Your task to perform on an android device: Open the Play Movies app and select the watchlist tab. Image 0: 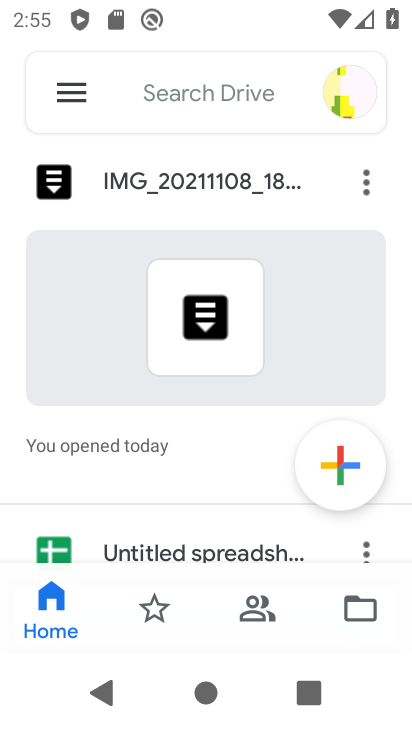
Step 0: press home button
Your task to perform on an android device: Open the Play Movies app and select the watchlist tab. Image 1: 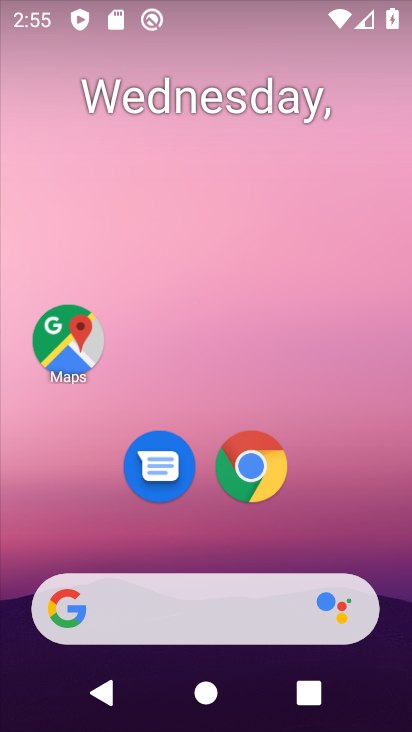
Step 1: drag from (396, 624) to (323, 157)
Your task to perform on an android device: Open the Play Movies app and select the watchlist tab. Image 2: 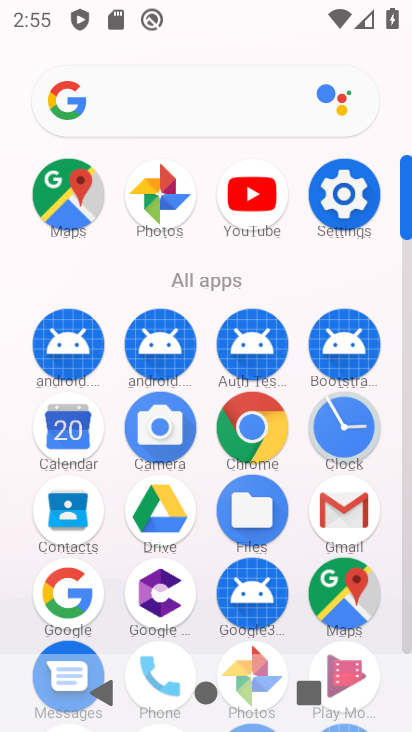
Step 2: click (407, 642)
Your task to perform on an android device: Open the Play Movies app and select the watchlist tab. Image 3: 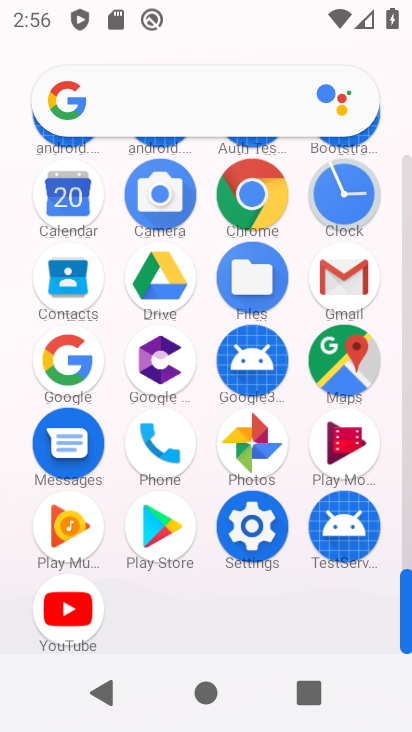
Step 3: click (337, 443)
Your task to perform on an android device: Open the Play Movies app and select the watchlist tab. Image 4: 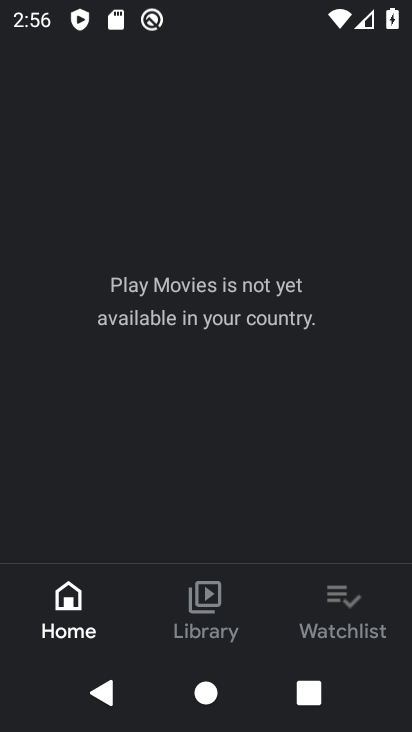
Step 4: click (332, 602)
Your task to perform on an android device: Open the Play Movies app and select the watchlist tab. Image 5: 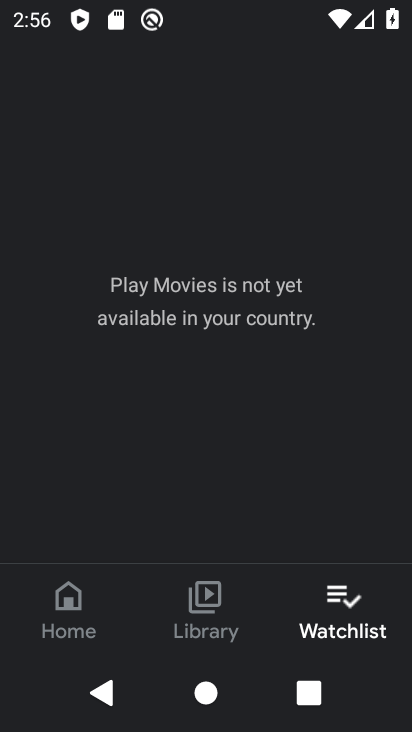
Step 5: task complete